Your task to perform on an android device: Open Google Image 0: 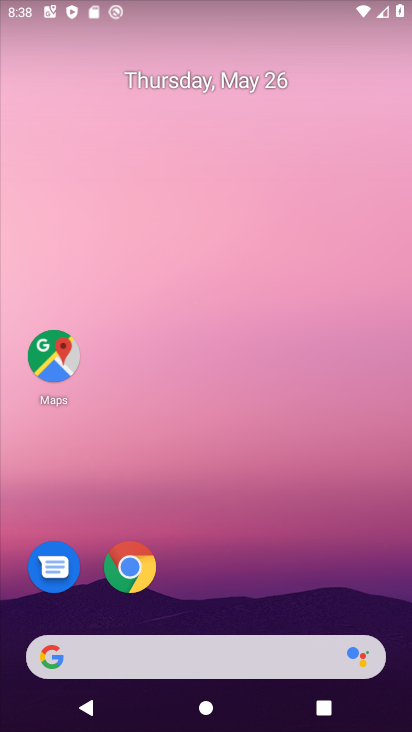
Step 0: press home button
Your task to perform on an android device: Open Google Image 1: 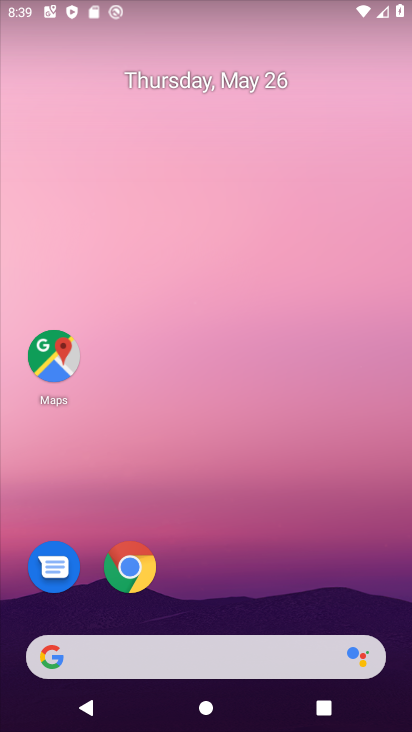
Step 1: drag from (149, 647) to (307, 55)
Your task to perform on an android device: Open Google Image 2: 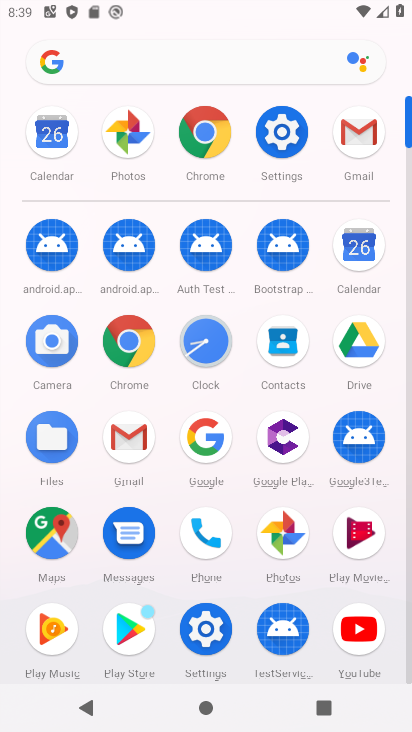
Step 2: click (214, 432)
Your task to perform on an android device: Open Google Image 3: 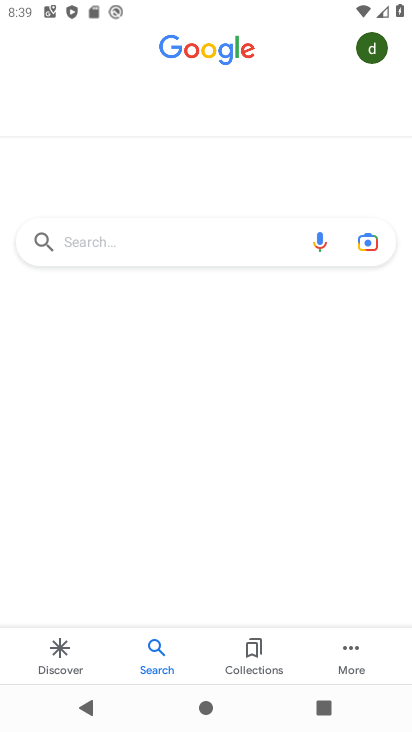
Step 3: task complete